Your task to perform on an android device: open chrome privacy settings Image 0: 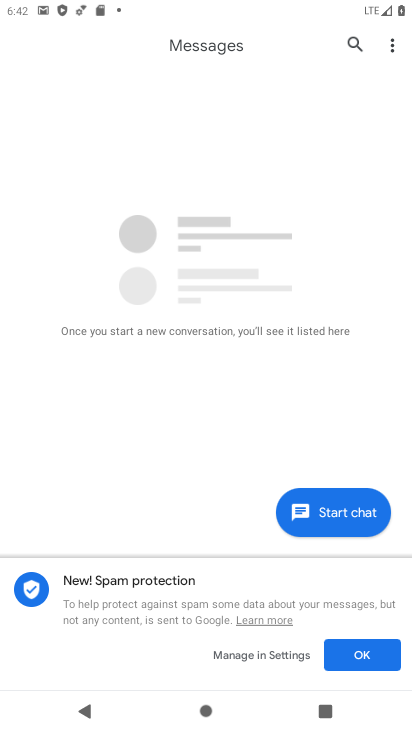
Step 0: press home button
Your task to perform on an android device: open chrome privacy settings Image 1: 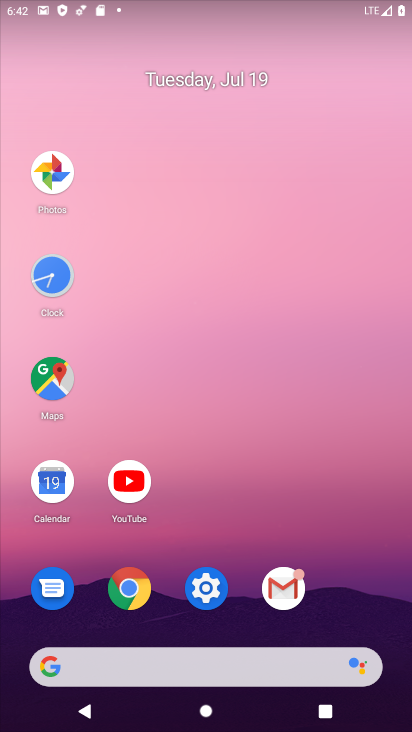
Step 1: click (125, 590)
Your task to perform on an android device: open chrome privacy settings Image 2: 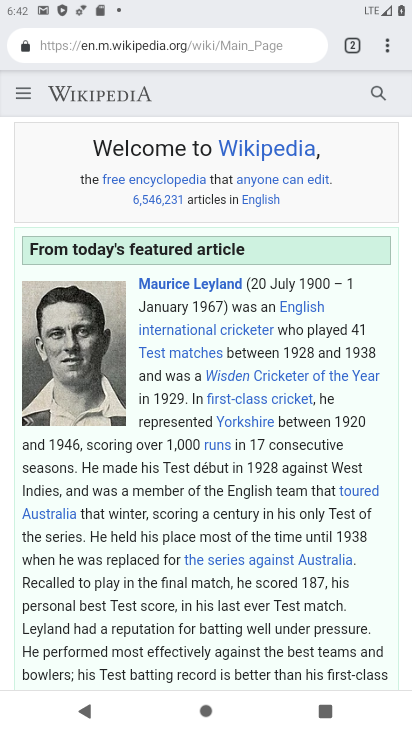
Step 2: click (390, 43)
Your task to perform on an android device: open chrome privacy settings Image 3: 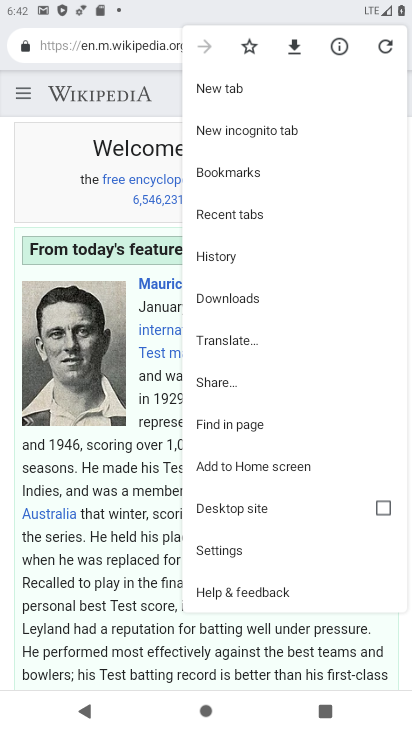
Step 3: click (233, 546)
Your task to perform on an android device: open chrome privacy settings Image 4: 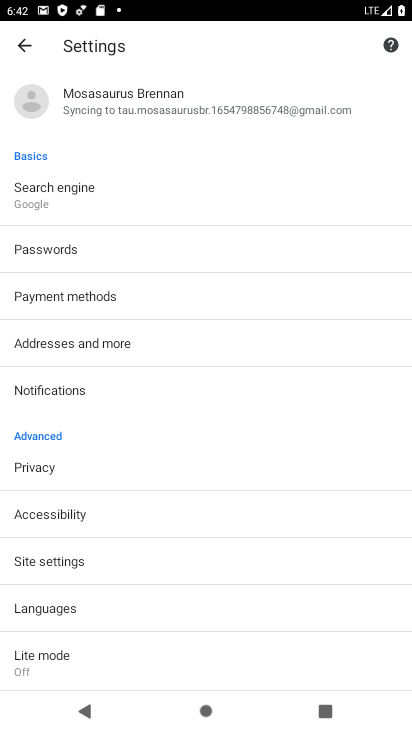
Step 4: click (32, 467)
Your task to perform on an android device: open chrome privacy settings Image 5: 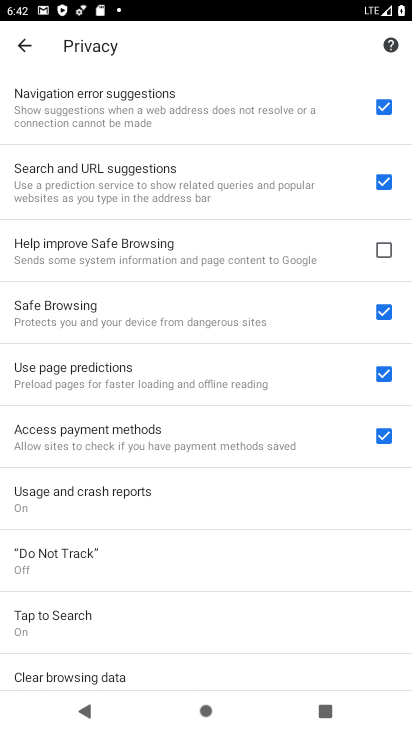
Step 5: task complete